Your task to perform on an android device: When is my next meeting? Image 0: 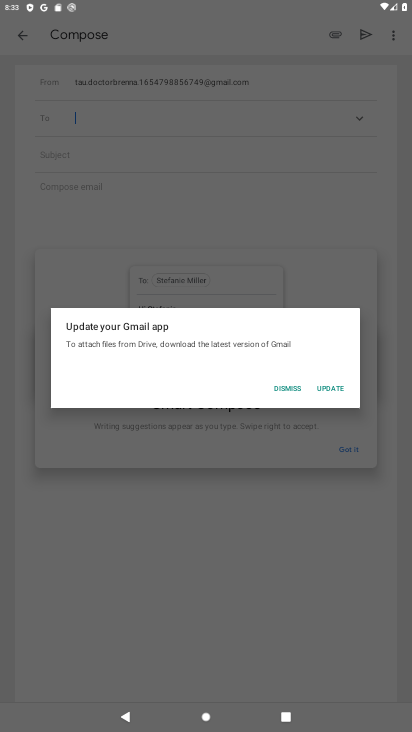
Step 0: press home button
Your task to perform on an android device: When is my next meeting? Image 1: 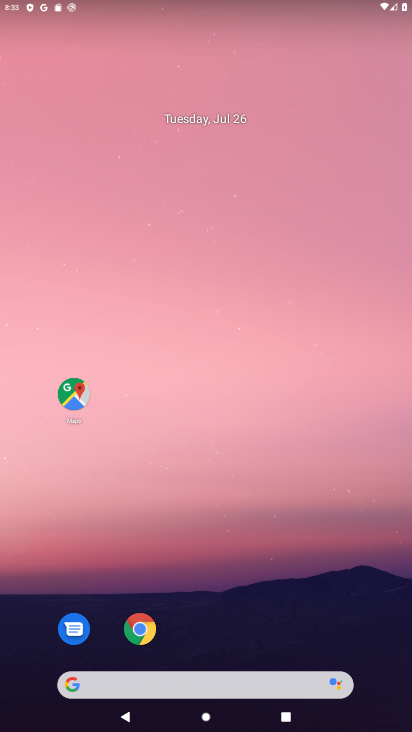
Step 1: drag from (234, 612) to (372, 21)
Your task to perform on an android device: When is my next meeting? Image 2: 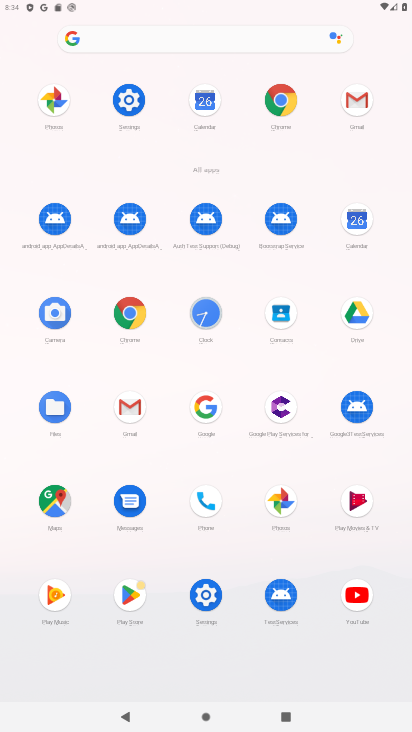
Step 2: click (355, 221)
Your task to perform on an android device: When is my next meeting? Image 3: 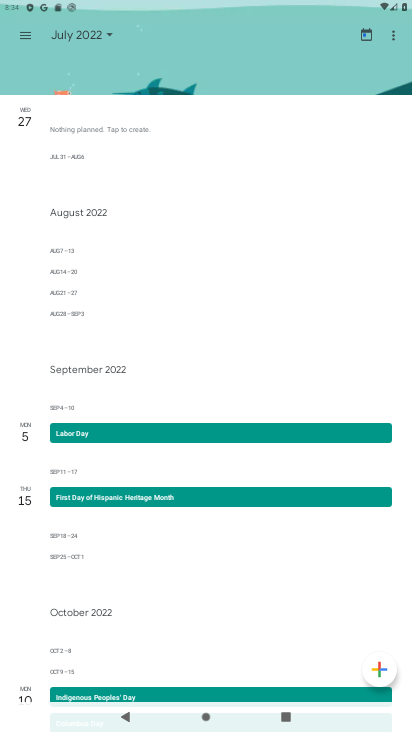
Step 3: task complete